Your task to perform on an android device: Go to location settings Image 0: 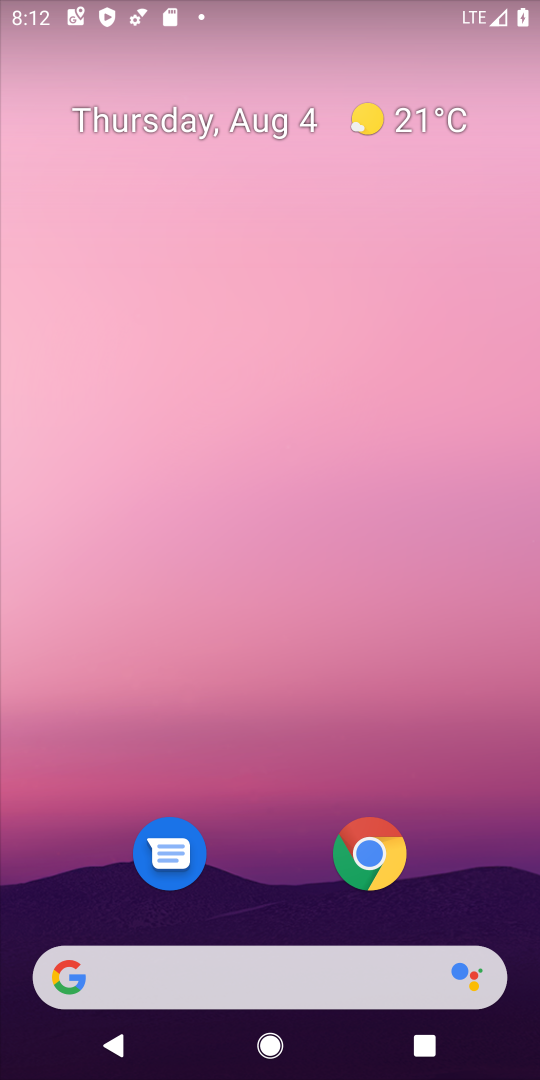
Step 0: press home button
Your task to perform on an android device: Go to location settings Image 1: 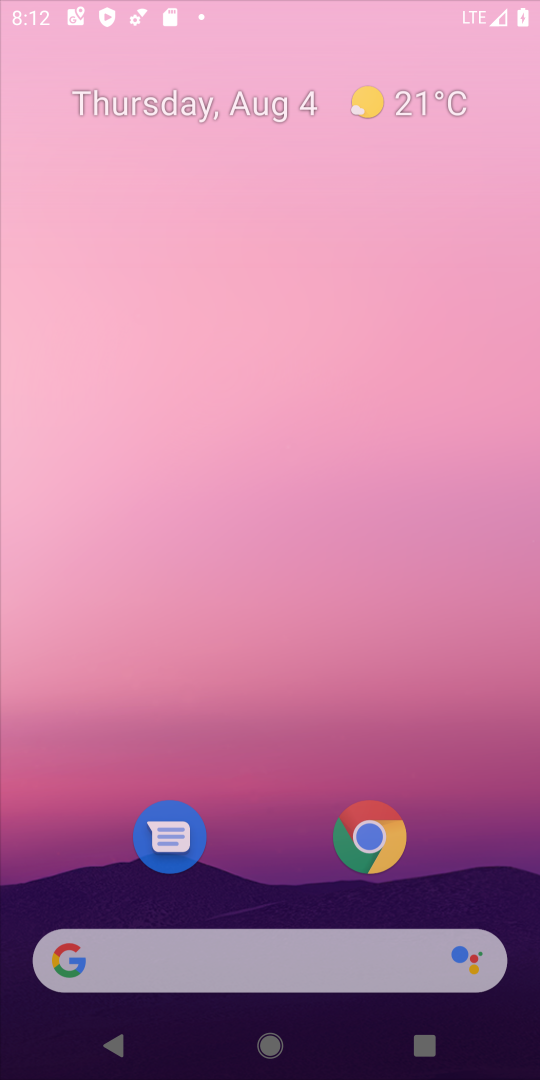
Step 1: drag from (156, 840) to (156, 399)
Your task to perform on an android device: Go to location settings Image 2: 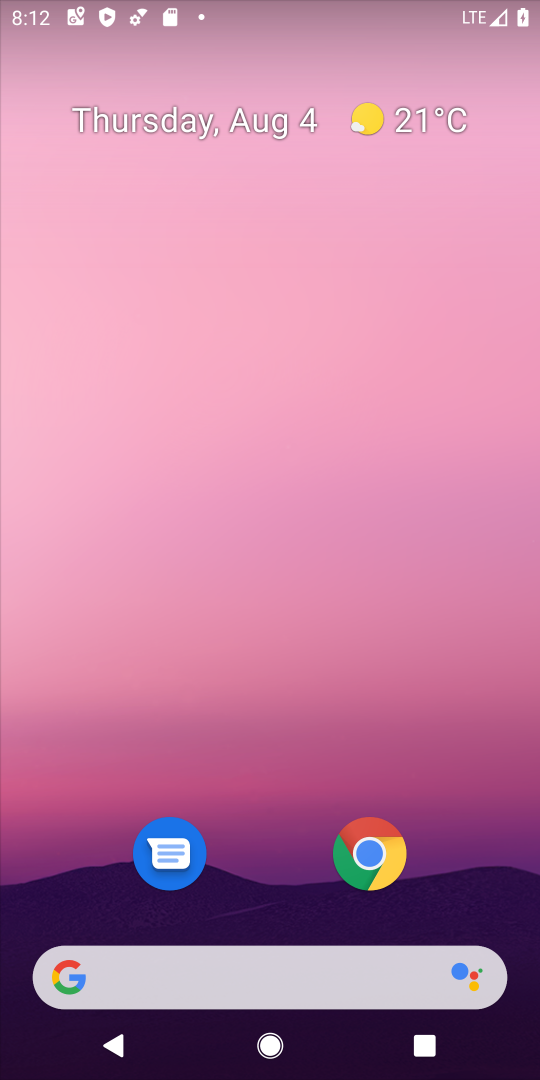
Step 2: drag from (217, 878) to (269, 231)
Your task to perform on an android device: Go to location settings Image 3: 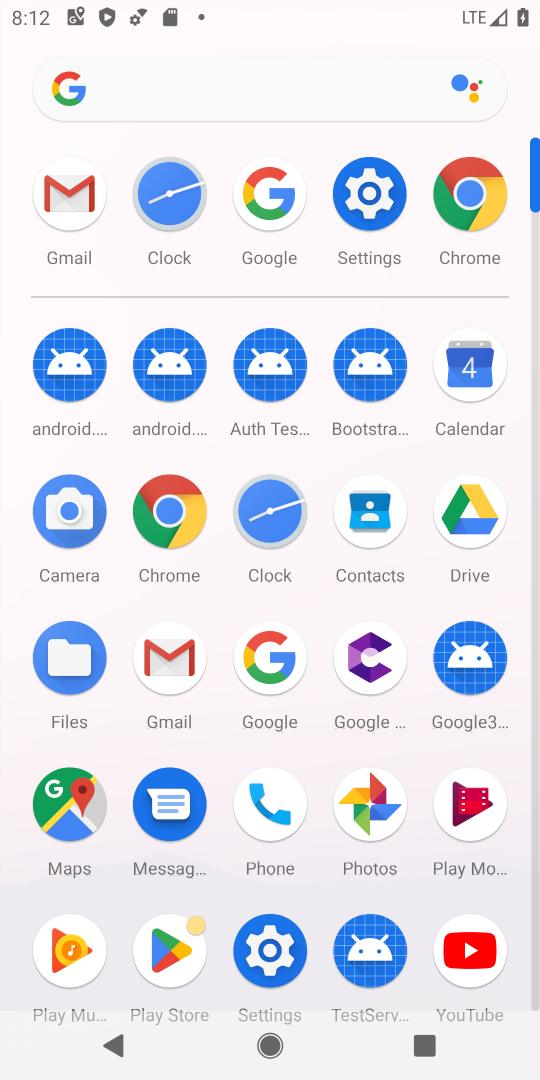
Step 3: click (353, 203)
Your task to perform on an android device: Go to location settings Image 4: 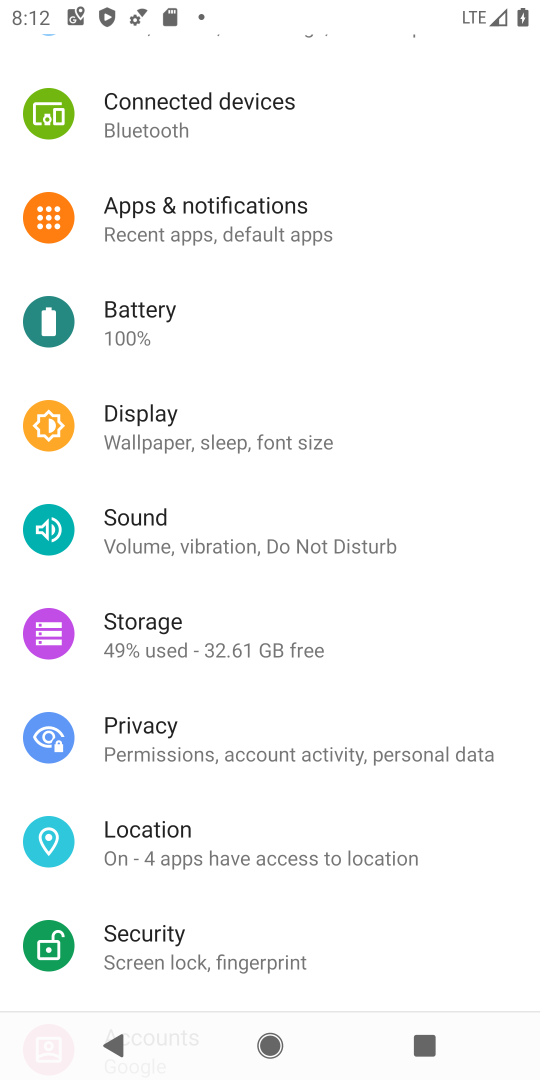
Step 4: click (122, 831)
Your task to perform on an android device: Go to location settings Image 5: 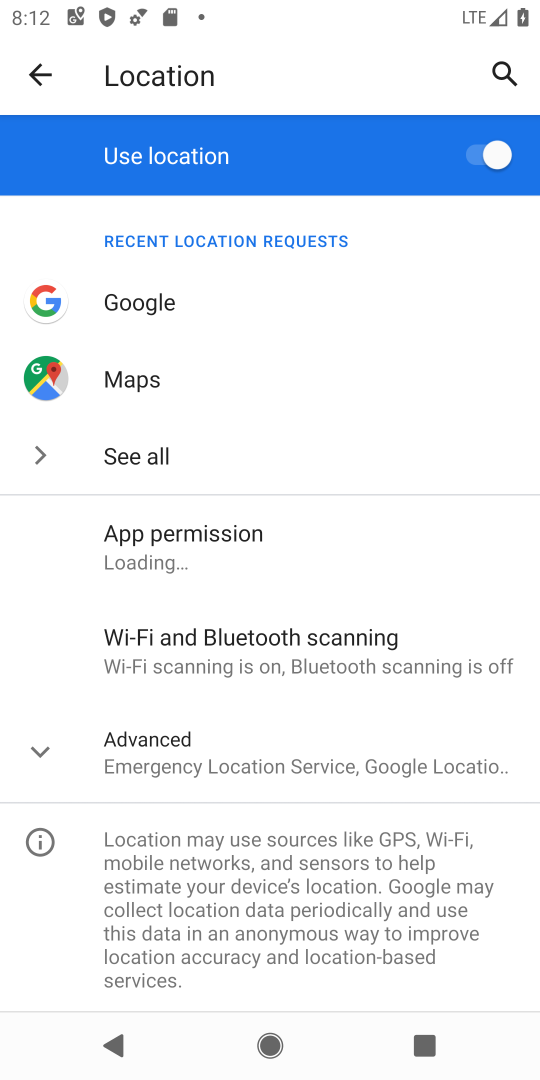
Step 5: click (175, 751)
Your task to perform on an android device: Go to location settings Image 6: 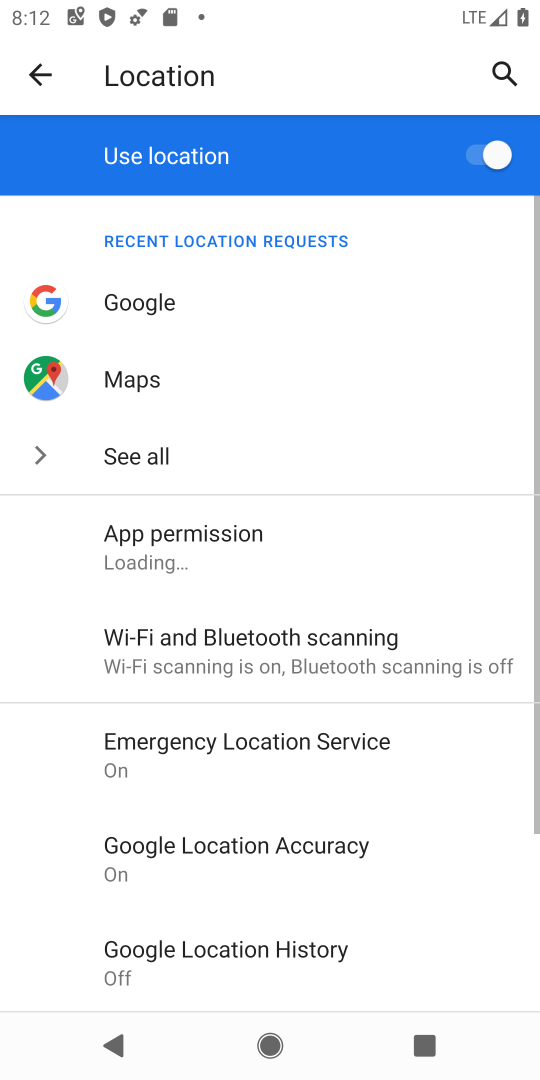
Step 6: task complete